Your task to perform on an android device: Go to ESPN.com Image 0: 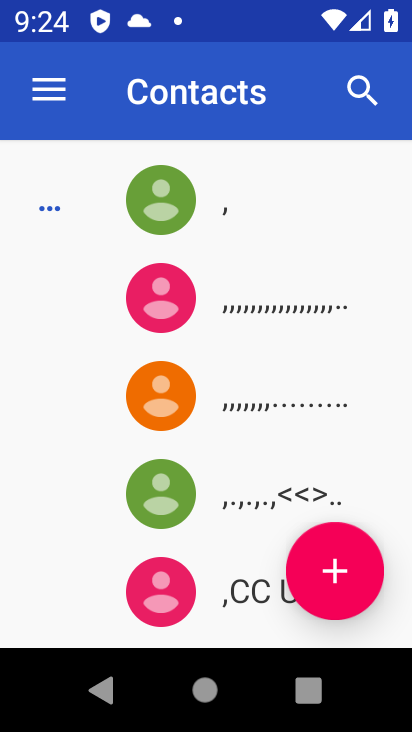
Step 0: press home button
Your task to perform on an android device: Go to ESPN.com Image 1: 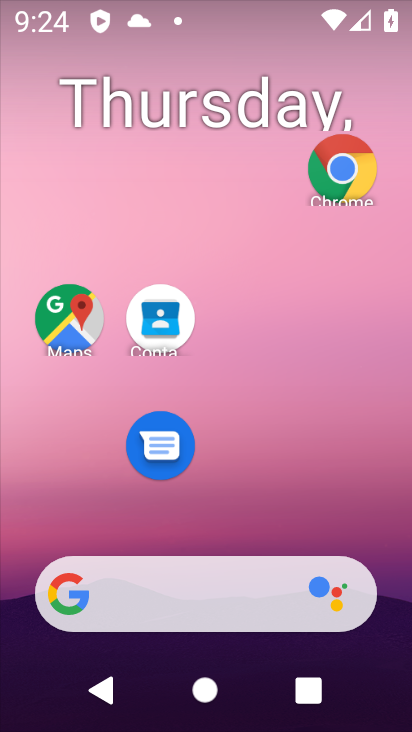
Step 1: drag from (259, 633) to (263, 141)
Your task to perform on an android device: Go to ESPN.com Image 2: 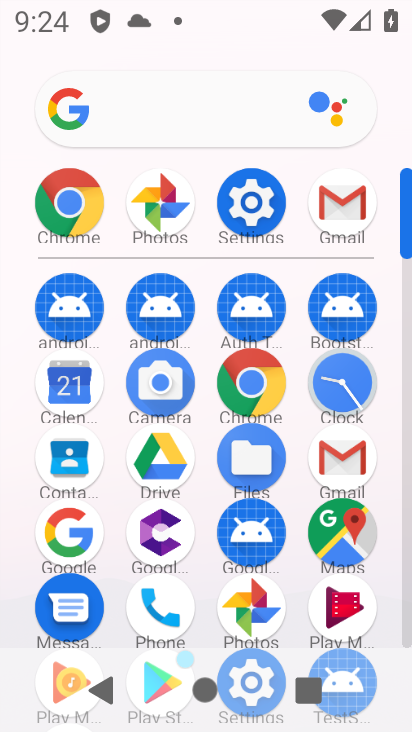
Step 2: click (64, 202)
Your task to perform on an android device: Go to ESPN.com Image 3: 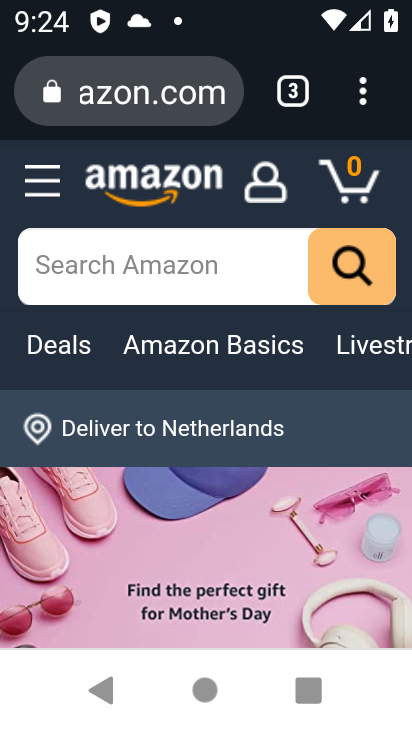
Step 3: click (150, 100)
Your task to perform on an android device: Go to ESPN.com Image 4: 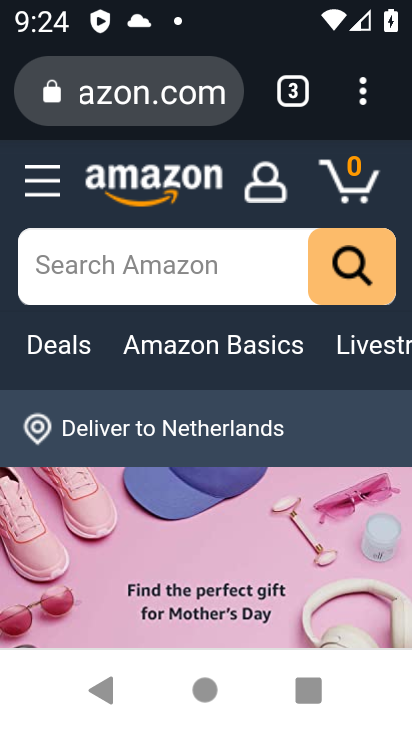
Step 4: click (150, 100)
Your task to perform on an android device: Go to ESPN.com Image 5: 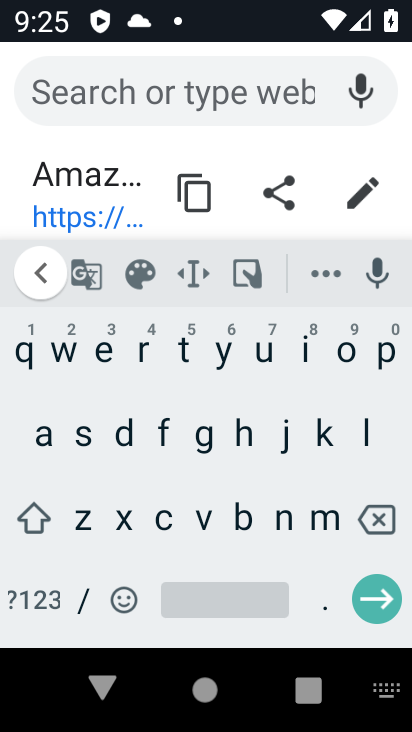
Step 5: click (100, 354)
Your task to perform on an android device: Go to ESPN.com Image 6: 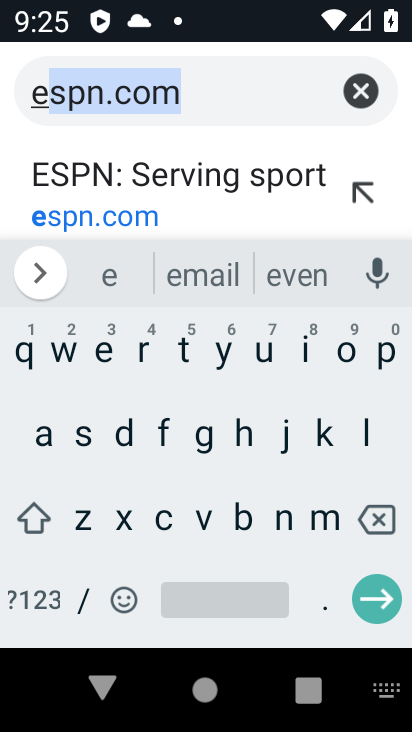
Step 6: click (228, 98)
Your task to perform on an android device: Go to ESPN.com Image 7: 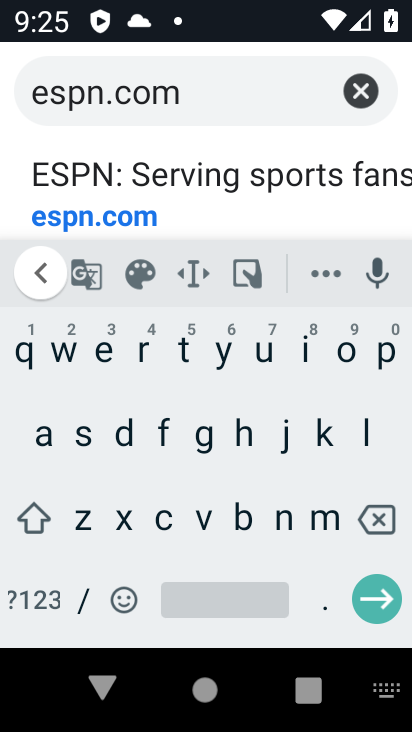
Step 7: click (387, 604)
Your task to perform on an android device: Go to ESPN.com Image 8: 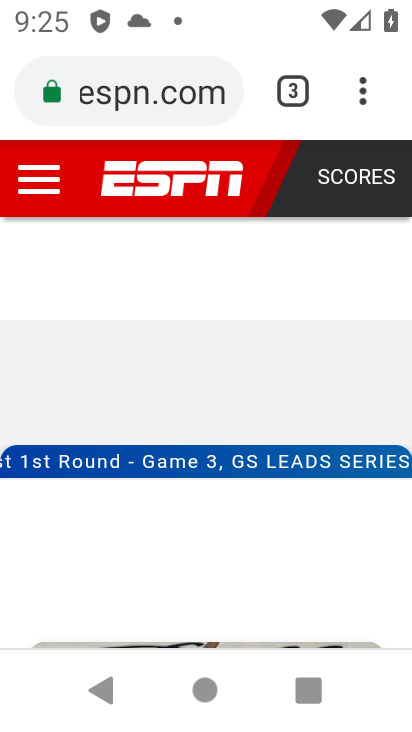
Step 8: task complete